Your task to perform on an android device: turn on location history Image 0: 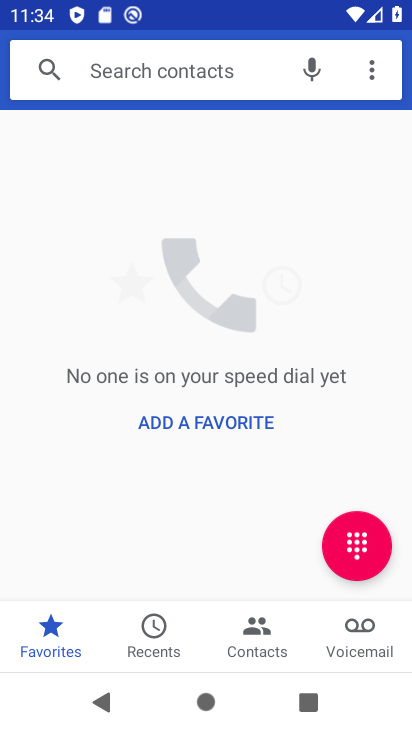
Step 0: press home button
Your task to perform on an android device: turn on location history Image 1: 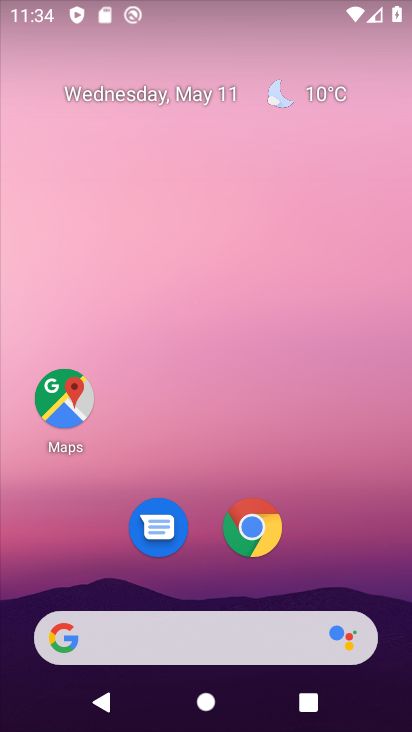
Step 1: drag from (233, 596) to (265, 0)
Your task to perform on an android device: turn on location history Image 2: 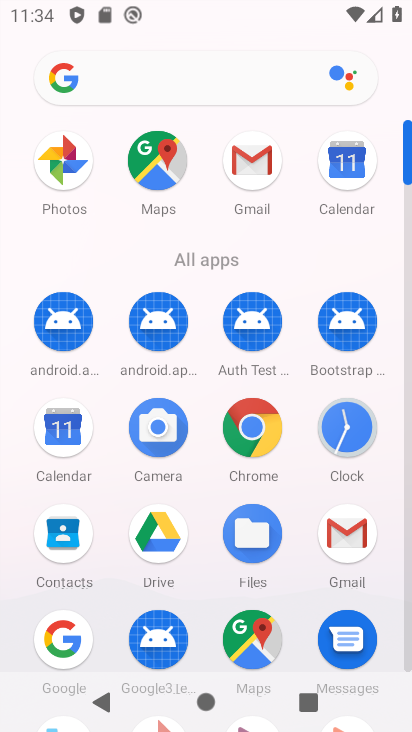
Step 2: drag from (208, 408) to (210, 204)
Your task to perform on an android device: turn on location history Image 3: 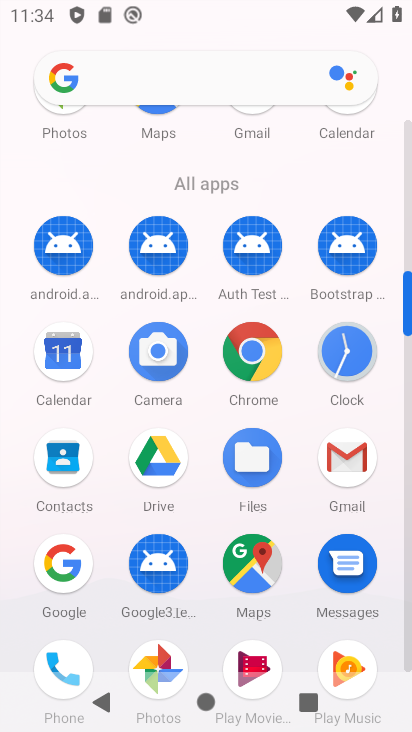
Step 3: drag from (266, 609) to (282, 212)
Your task to perform on an android device: turn on location history Image 4: 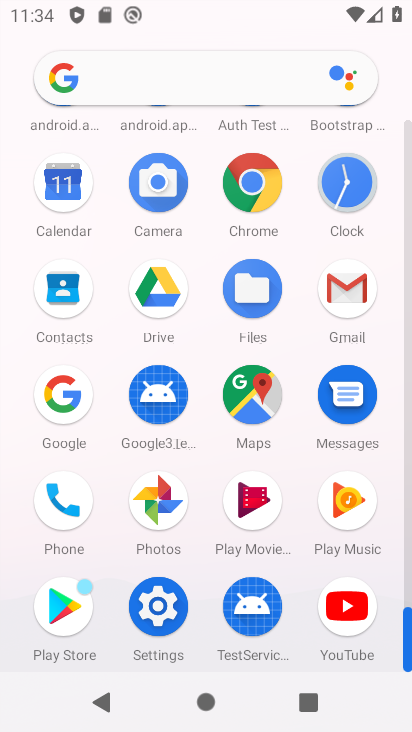
Step 4: click (173, 604)
Your task to perform on an android device: turn on location history Image 5: 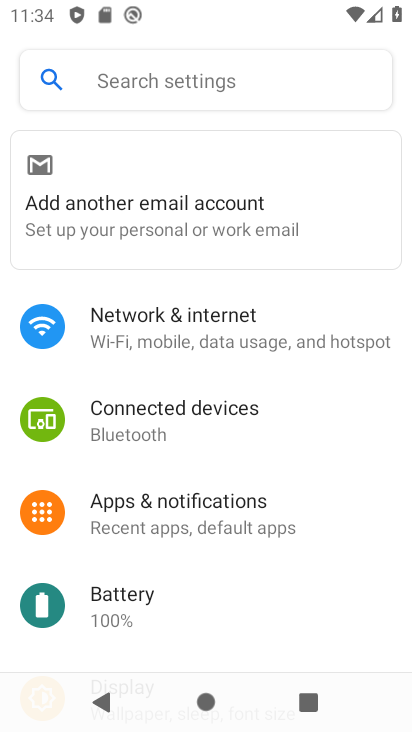
Step 5: drag from (258, 506) to (279, 185)
Your task to perform on an android device: turn on location history Image 6: 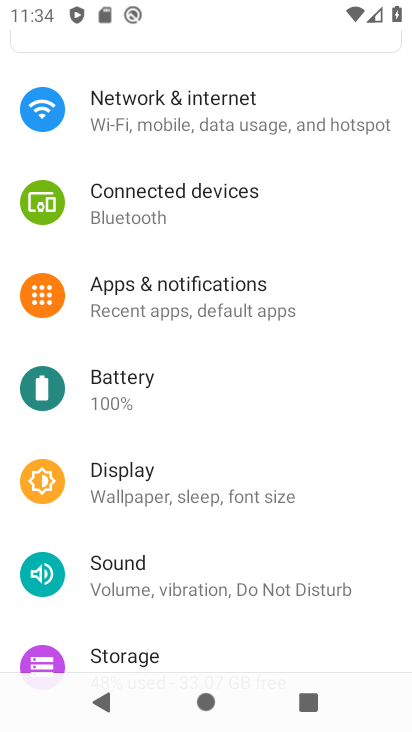
Step 6: drag from (176, 633) to (264, 190)
Your task to perform on an android device: turn on location history Image 7: 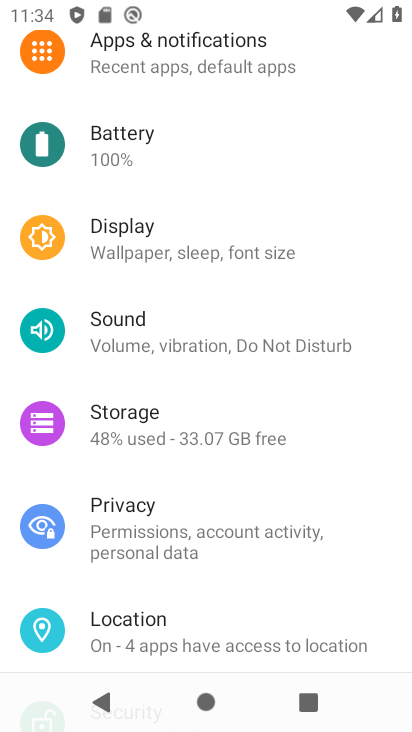
Step 7: click (184, 647)
Your task to perform on an android device: turn on location history Image 8: 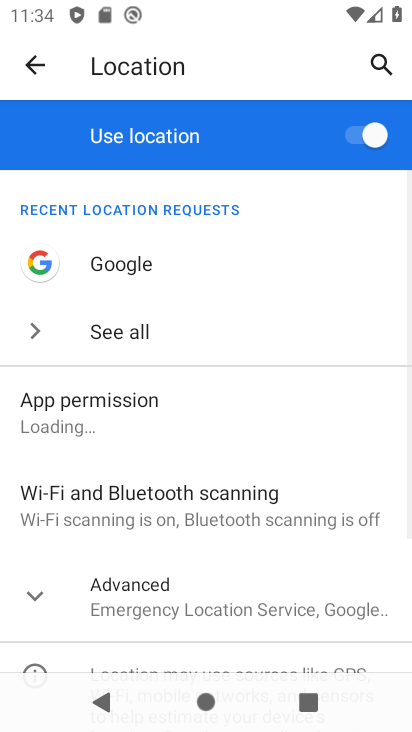
Step 8: drag from (223, 617) to (249, 311)
Your task to perform on an android device: turn on location history Image 9: 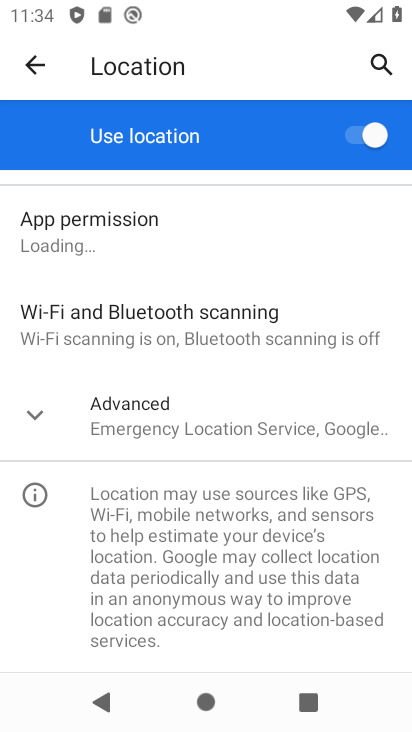
Step 9: click (207, 373)
Your task to perform on an android device: turn on location history Image 10: 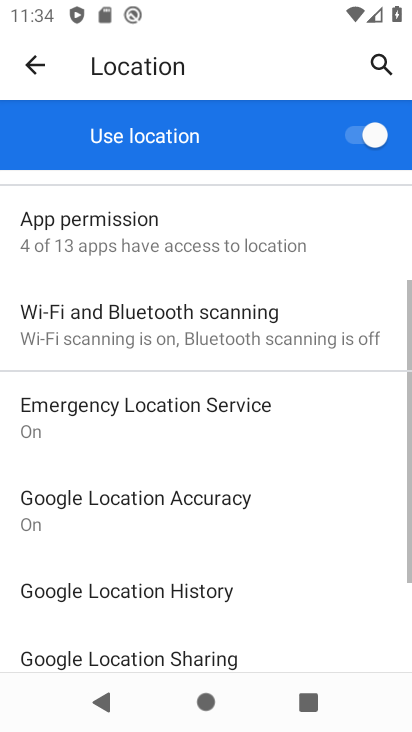
Step 10: drag from (251, 601) to (283, 264)
Your task to perform on an android device: turn on location history Image 11: 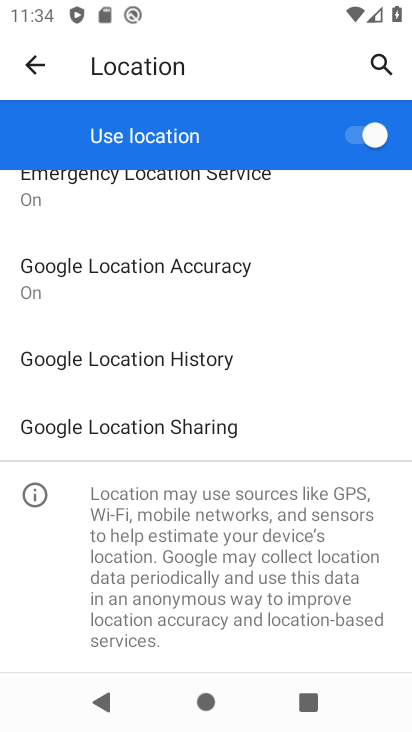
Step 11: click (161, 364)
Your task to perform on an android device: turn on location history Image 12: 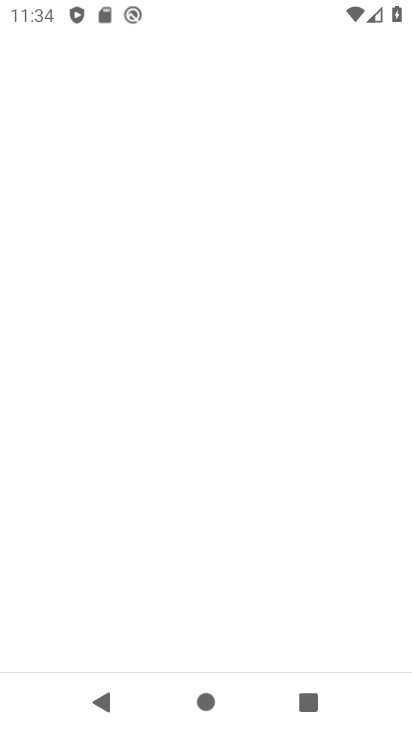
Step 12: task complete